Your task to perform on an android device: Go to location settings Image 0: 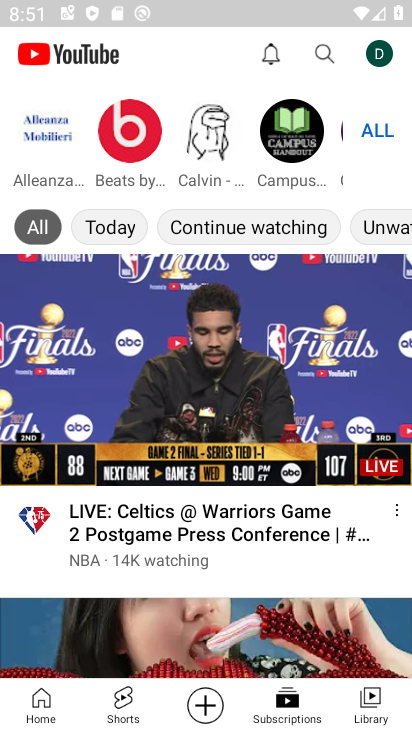
Step 0: press home button
Your task to perform on an android device: Go to location settings Image 1: 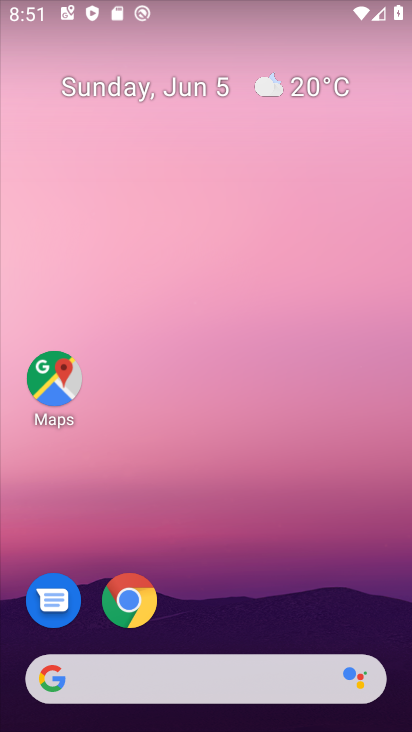
Step 1: drag from (248, 592) to (204, 38)
Your task to perform on an android device: Go to location settings Image 2: 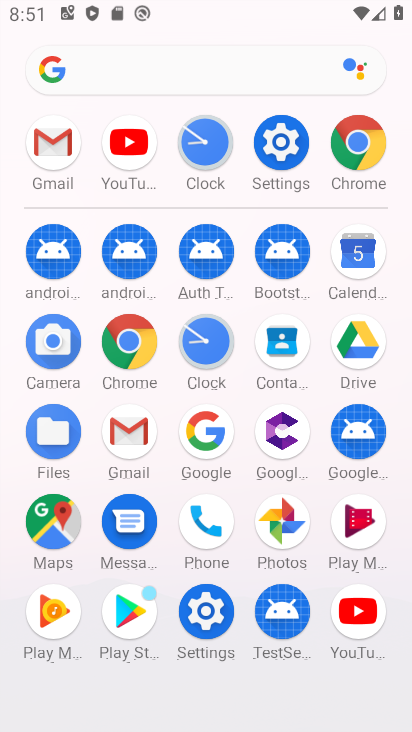
Step 2: click (269, 134)
Your task to perform on an android device: Go to location settings Image 3: 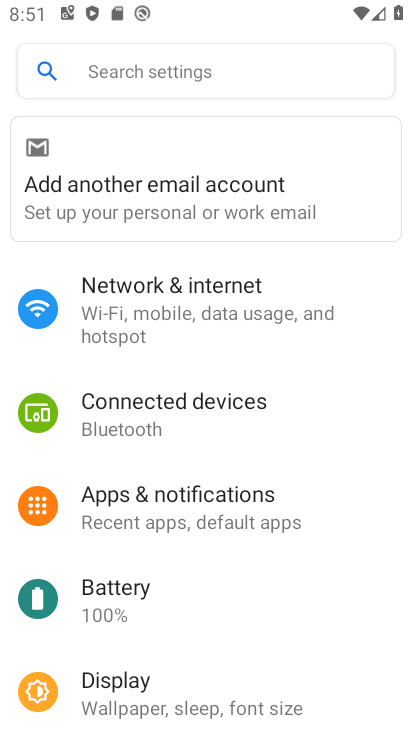
Step 3: drag from (185, 543) to (166, 46)
Your task to perform on an android device: Go to location settings Image 4: 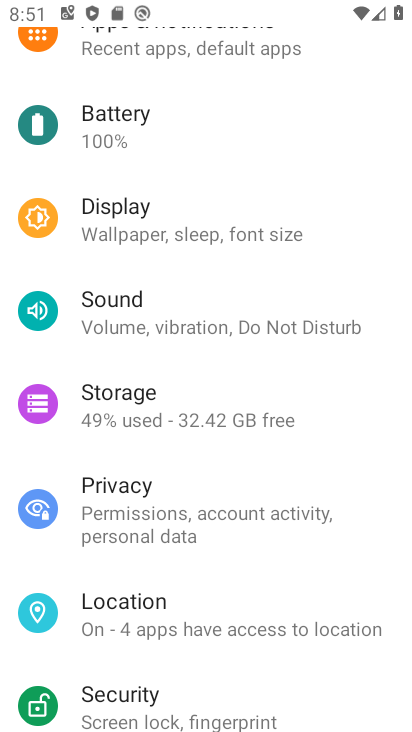
Step 4: click (223, 610)
Your task to perform on an android device: Go to location settings Image 5: 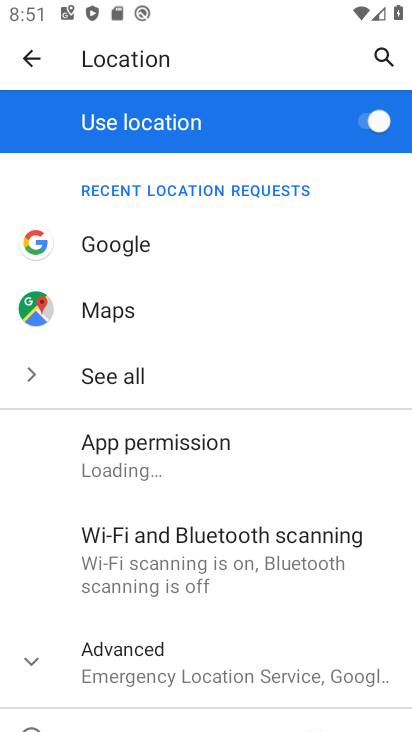
Step 5: task complete